Your task to perform on an android device: Open my contact list Image 0: 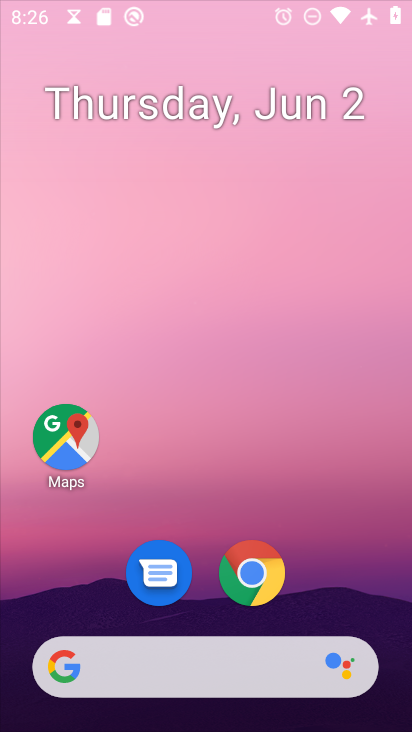
Step 0: press home button
Your task to perform on an android device: Open my contact list Image 1: 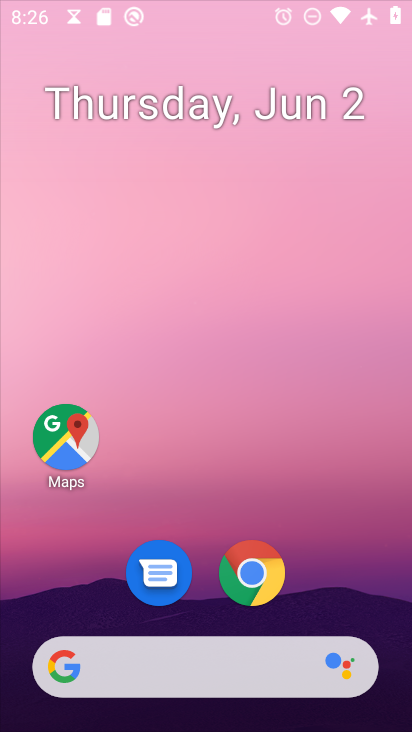
Step 1: drag from (207, 482) to (328, 146)
Your task to perform on an android device: Open my contact list Image 2: 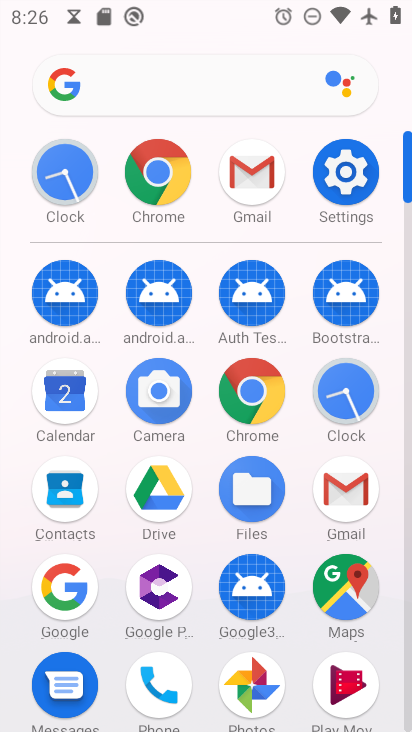
Step 2: click (65, 504)
Your task to perform on an android device: Open my contact list Image 3: 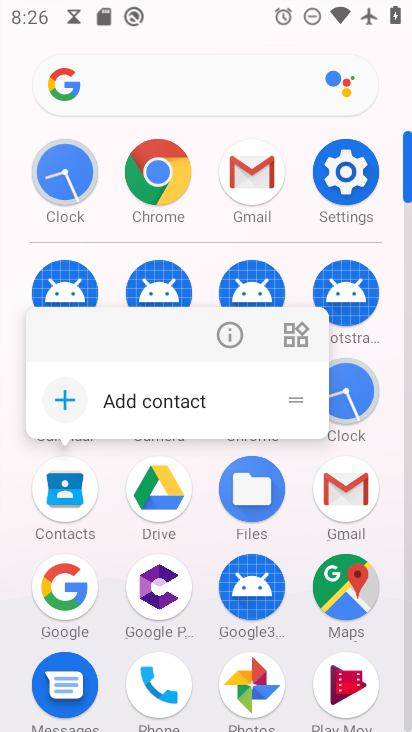
Step 3: click (34, 501)
Your task to perform on an android device: Open my contact list Image 4: 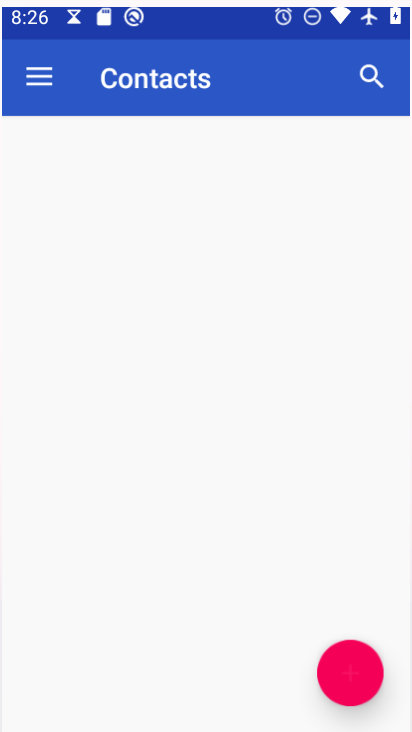
Step 4: click (68, 500)
Your task to perform on an android device: Open my contact list Image 5: 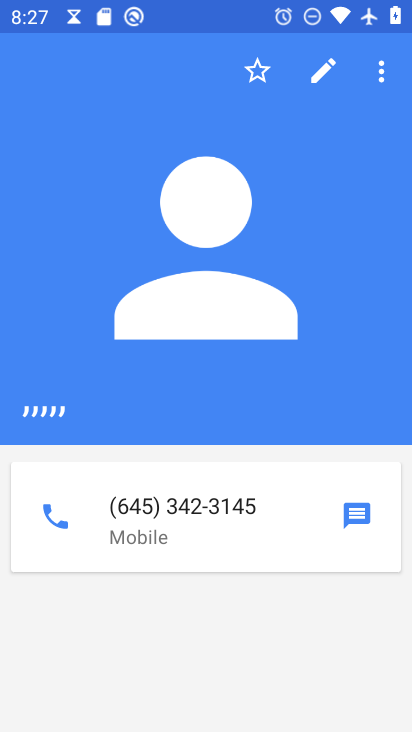
Step 5: task complete